Your task to perform on an android device: change the upload size in google photos Image 0: 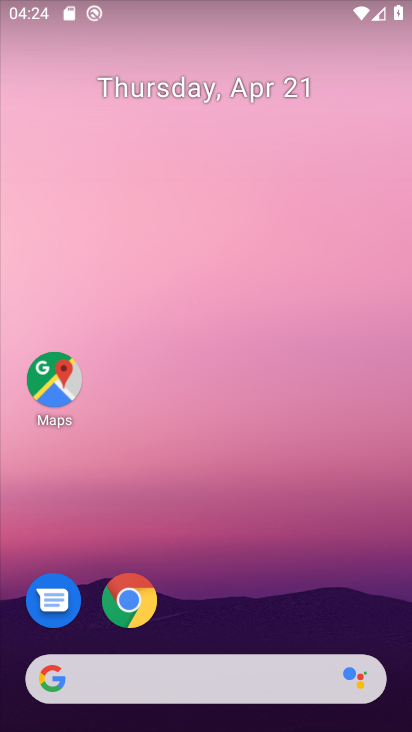
Step 0: drag from (358, 605) to (380, 33)
Your task to perform on an android device: change the upload size in google photos Image 1: 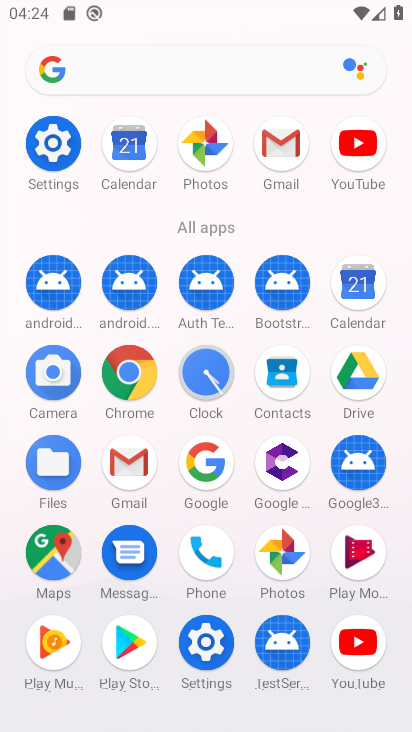
Step 1: click (201, 152)
Your task to perform on an android device: change the upload size in google photos Image 2: 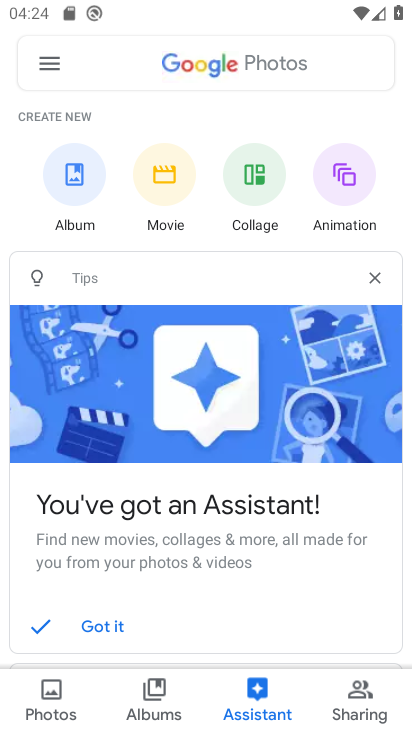
Step 2: click (45, 64)
Your task to perform on an android device: change the upload size in google photos Image 3: 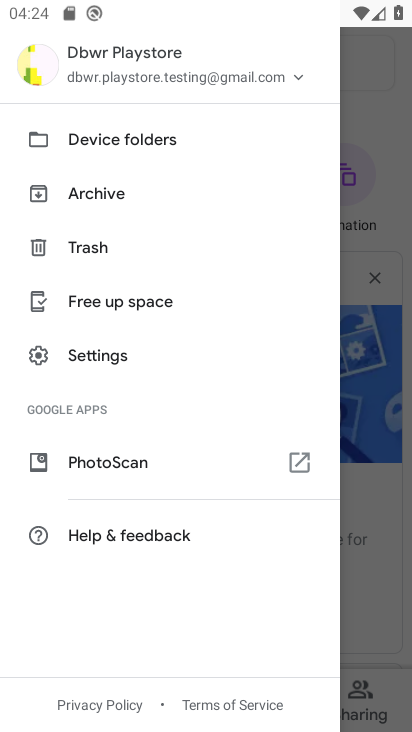
Step 3: click (94, 355)
Your task to perform on an android device: change the upload size in google photos Image 4: 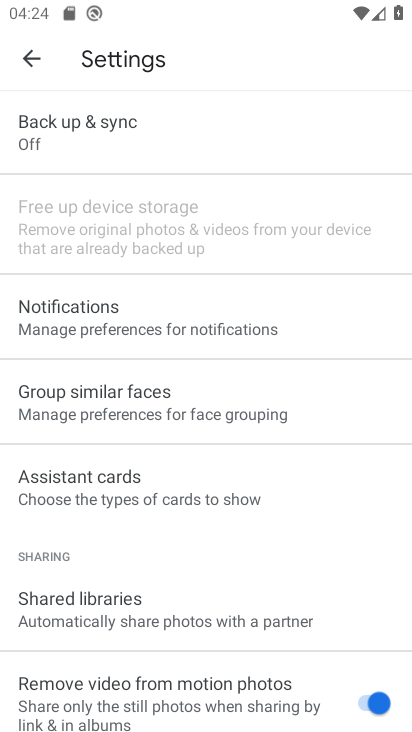
Step 4: click (92, 124)
Your task to perform on an android device: change the upload size in google photos Image 5: 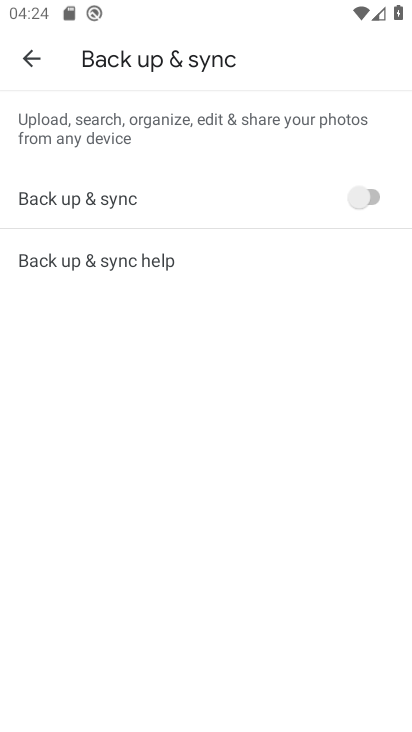
Step 5: click (357, 195)
Your task to perform on an android device: change the upload size in google photos Image 6: 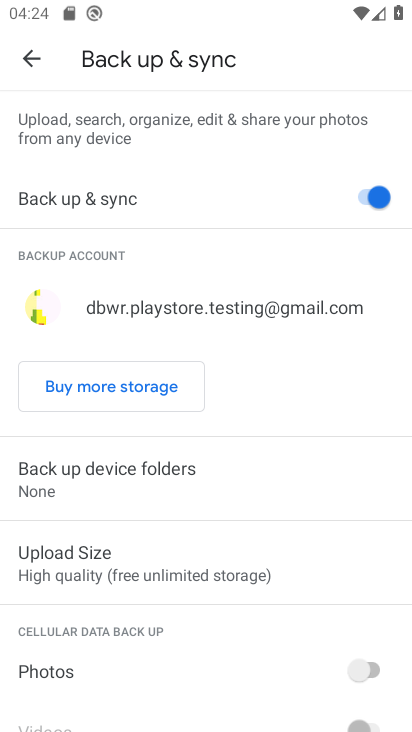
Step 6: click (85, 573)
Your task to perform on an android device: change the upload size in google photos Image 7: 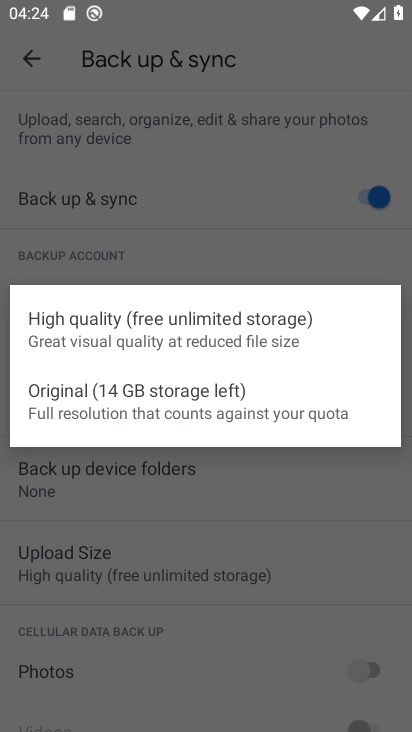
Step 7: click (76, 414)
Your task to perform on an android device: change the upload size in google photos Image 8: 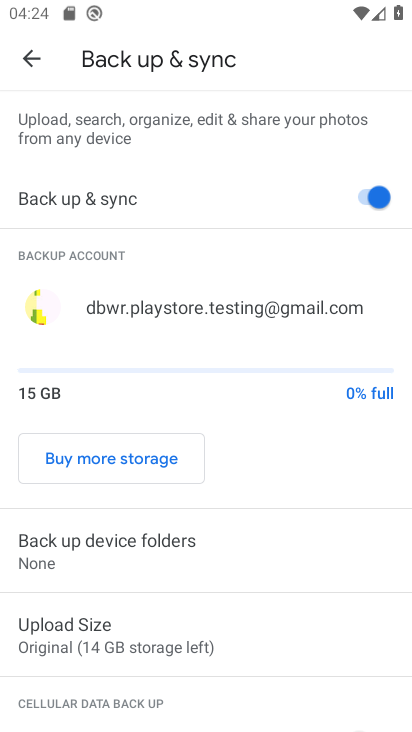
Step 8: task complete